Your task to perform on an android device: set the timer Image 0: 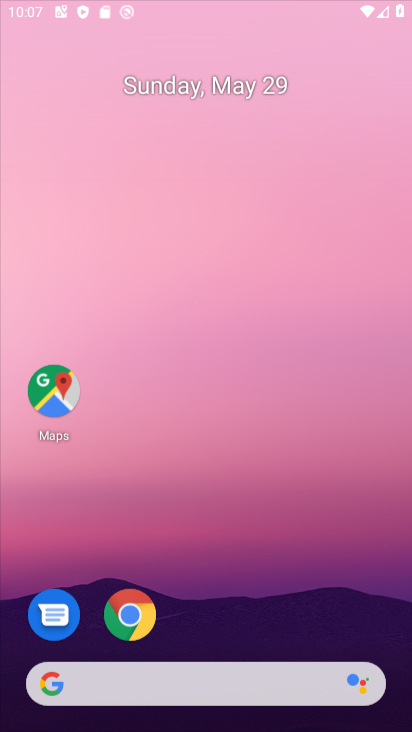
Step 0: drag from (216, 649) to (247, 17)
Your task to perform on an android device: set the timer Image 1: 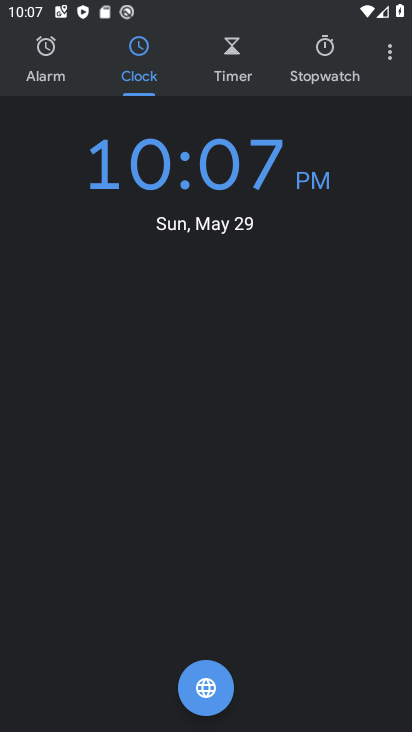
Step 1: click (220, 56)
Your task to perform on an android device: set the timer Image 2: 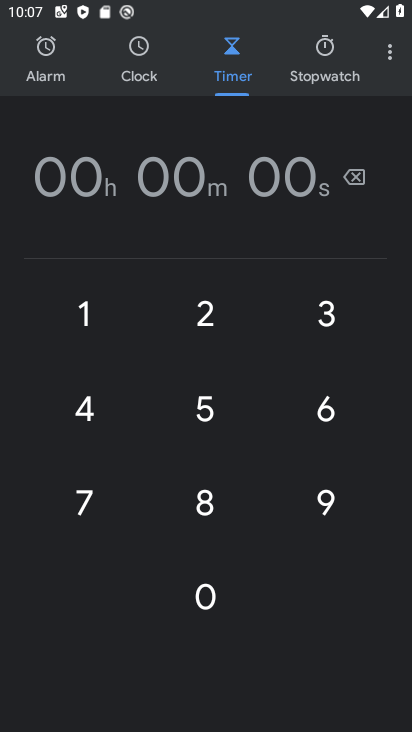
Step 2: click (220, 326)
Your task to perform on an android device: set the timer Image 3: 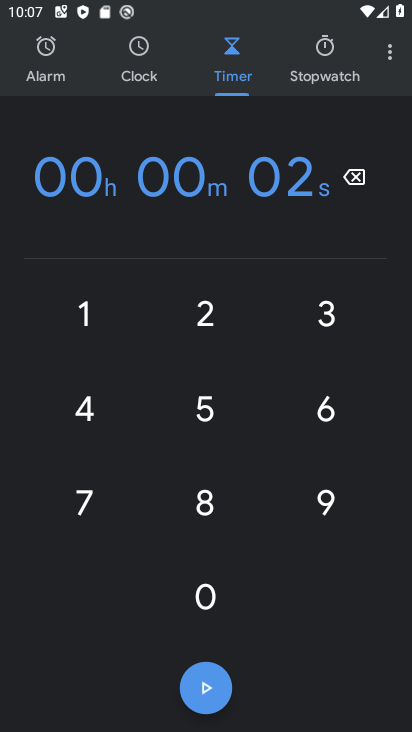
Step 3: click (198, 391)
Your task to perform on an android device: set the timer Image 4: 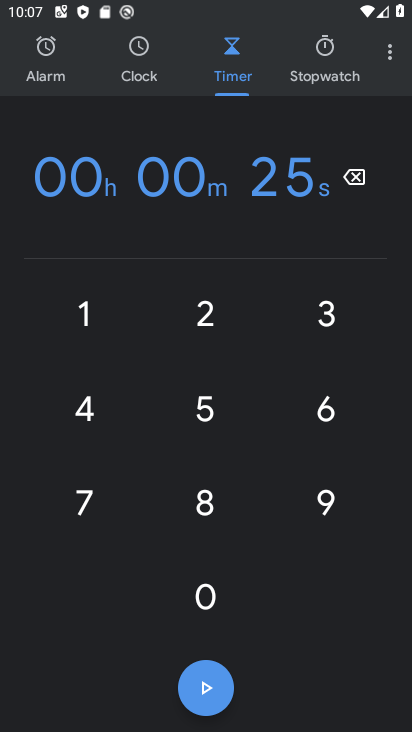
Step 4: click (209, 671)
Your task to perform on an android device: set the timer Image 5: 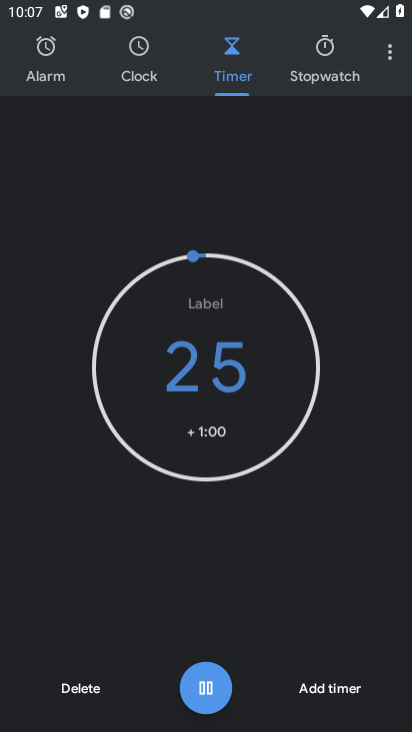
Step 5: task complete